Your task to perform on an android device: Open Wikipedia Image 0: 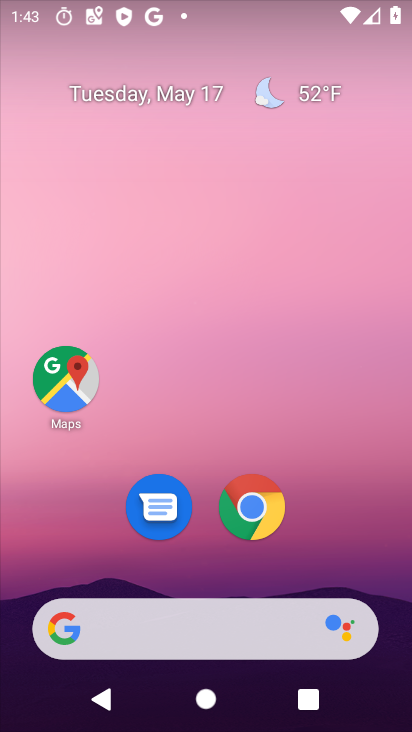
Step 0: drag from (211, 538) to (231, 135)
Your task to perform on an android device: Open Wikipedia Image 1: 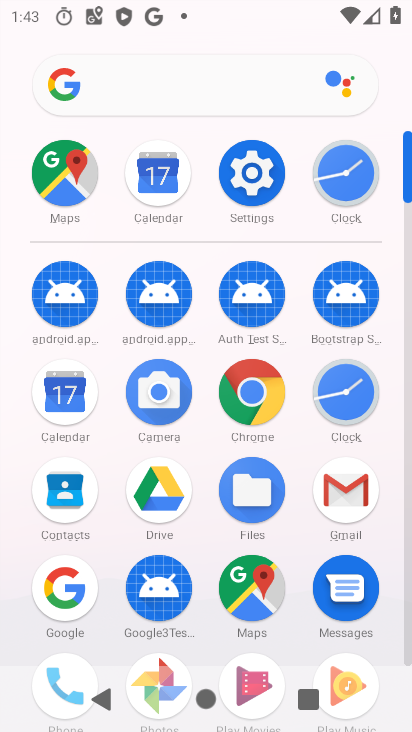
Step 1: click (252, 394)
Your task to perform on an android device: Open Wikipedia Image 2: 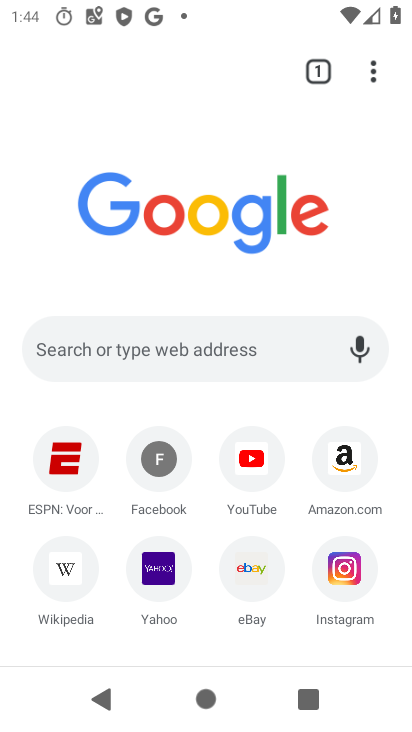
Step 2: click (63, 569)
Your task to perform on an android device: Open Wikipedia Image 3: 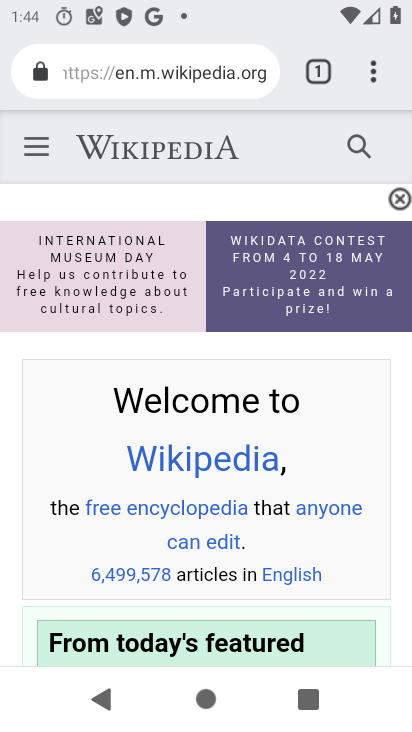
Step 3: task complete